Your task to perform on an android device: Go to sound settings Image 0: 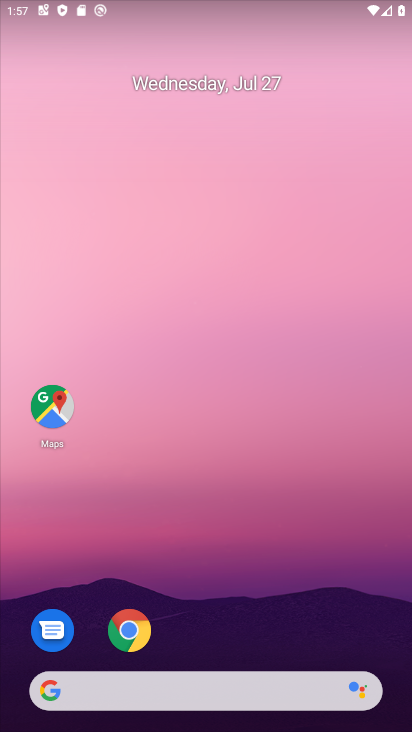
Step 0: drag from (364, 642) to (322, 199)
Your task to perform on an android device: Go to sound settings Image 1: 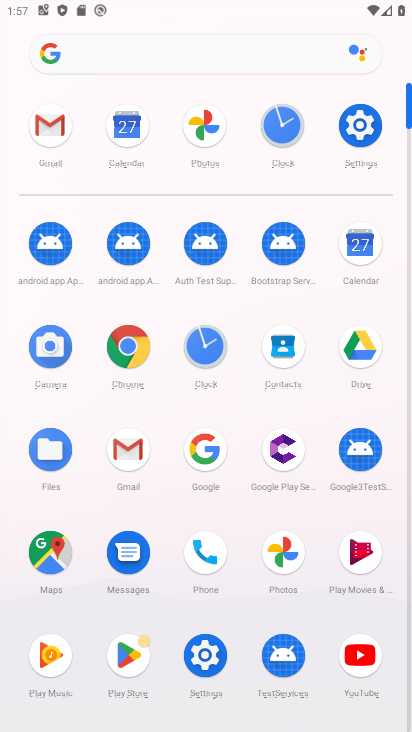
Step 1: click (206, 655)
Your task to perform on an android device: Go to sound settings Image 2: 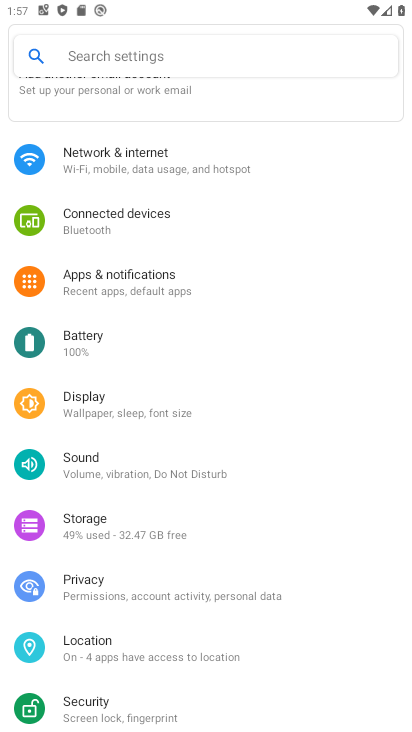
Step 2: click (93, 463)
Your task to perform on an android device: Go to sound settings Image 3: 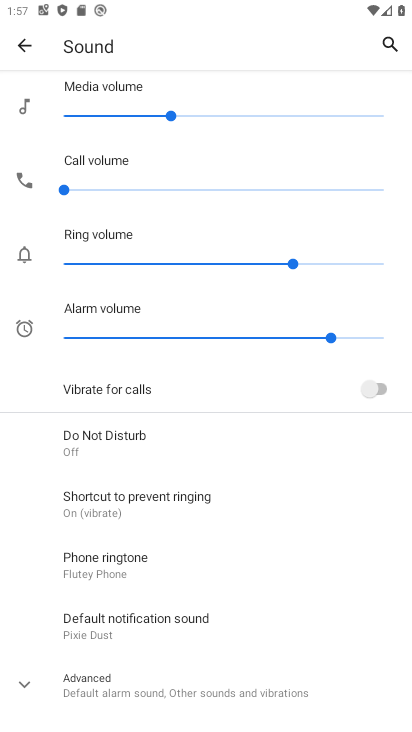
Step 3: click (15, 686)
Your task to perform on an android device: Go to sound settings Image 4: 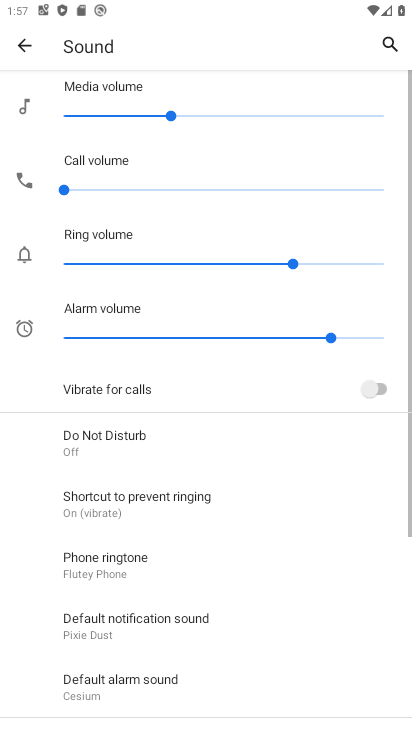
Step 4: task complete